Your task to perform on an android device: Open maps Image 0: 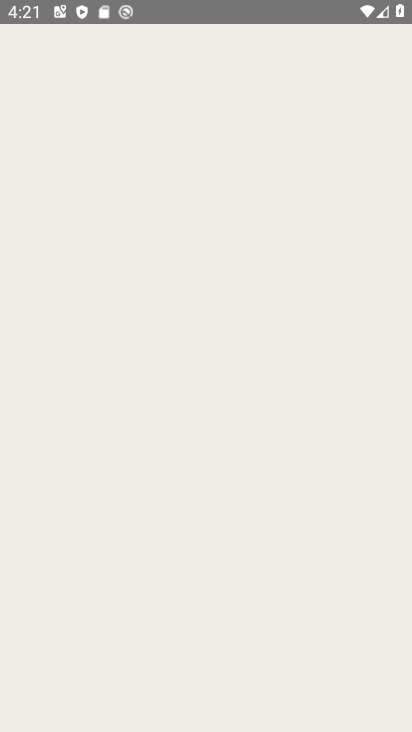
Step 0: press back button
Your task to perform on an android device: Open maps Image 1: 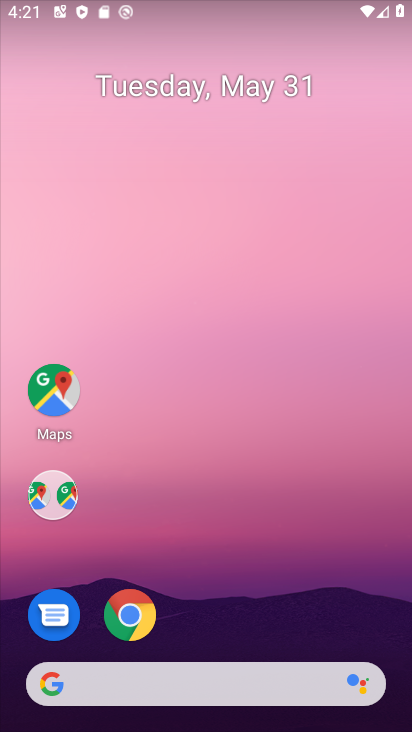
Step 1: drag from (245, 558) to (186, 112)
Your task to perform on an android device: Open maps Image 2: 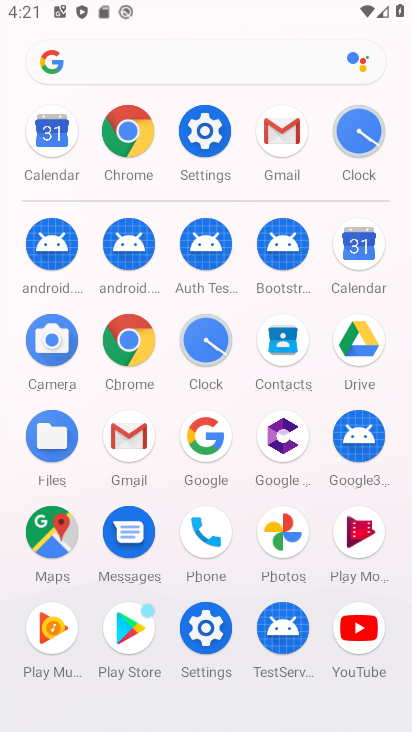
Step 2: click (48, 526)
Your task to perform on an android device: Open maps Image 3: 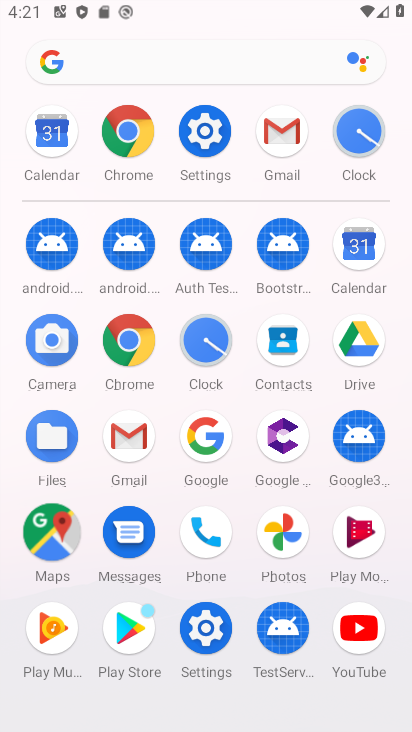
Step 3: click (49, 526)
Your task to perform on an android device: Open maps Image 4: 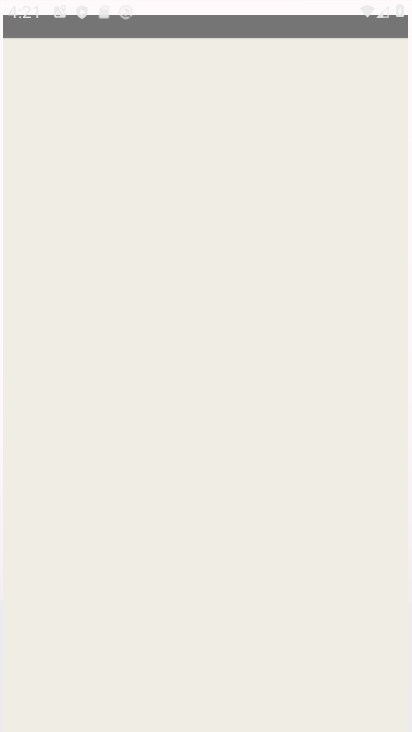
Step 4: click (49, 526)
Your task to perform on an android device: Open maps Image 5: 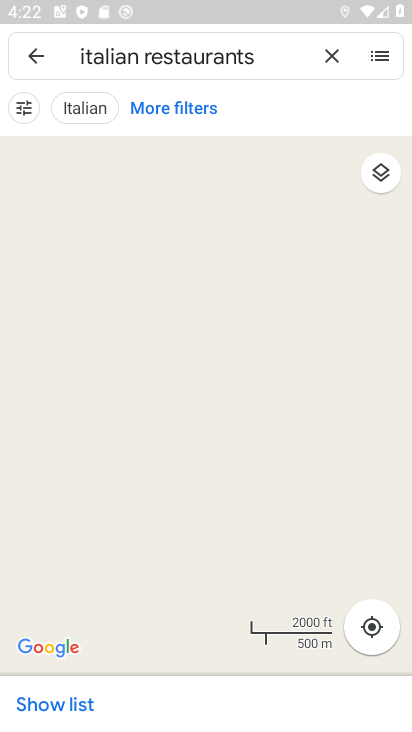
Step 5: task complete